Your task to perform on an android device: Open privacy settings Image 0: 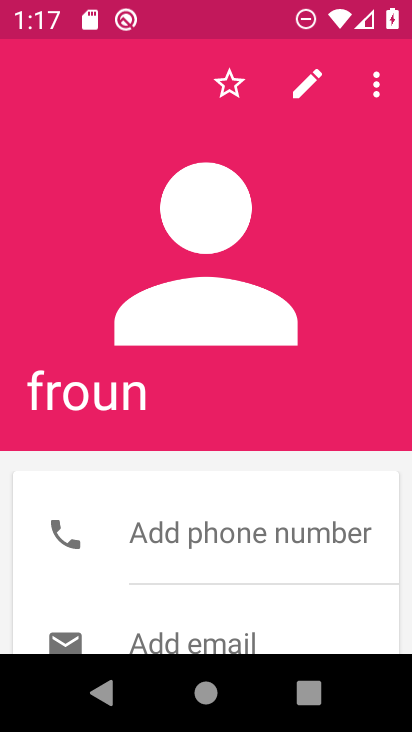
Step 0: press home button
Your task to perform on an android device: Open privacy settings Image 1: 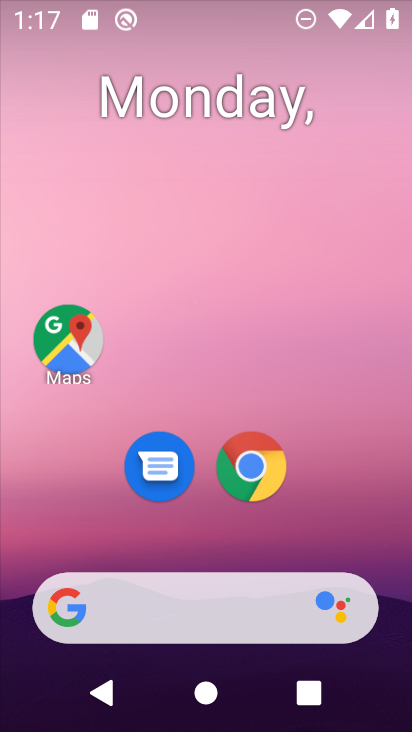
Step 1: click (169, 28)
Your task to perform on an android device: Open privacy settings Image 2: 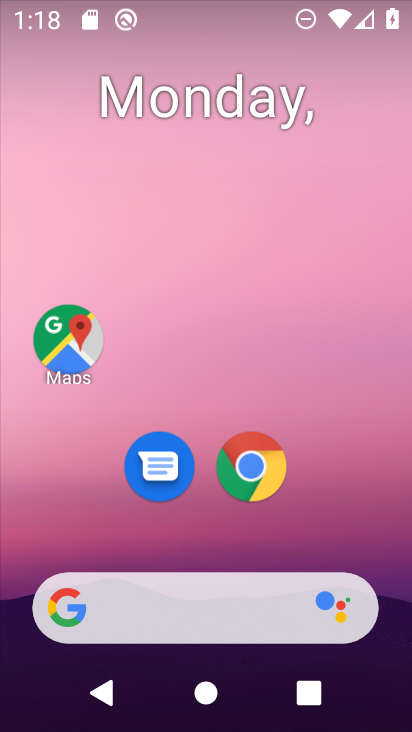
Step 2: drag from (200, 540) to (232, 5)
Your task to perform on an android device: Open privacy settings Image 3: 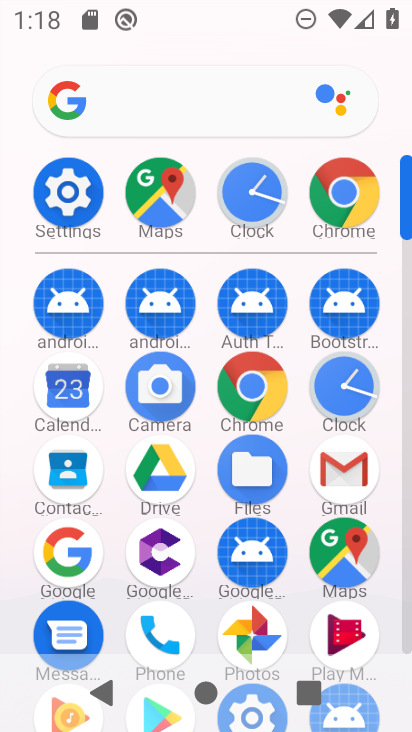
Step 3: click (77, 204)
Your task to perform on an android device: Open privacy settings Image 4: 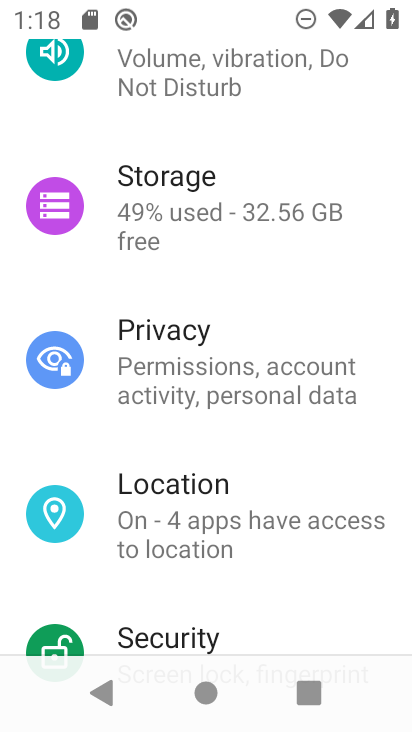
Step 4: click (162, 383)
Your task to perform on an android device: Open privacy settings Image 5: 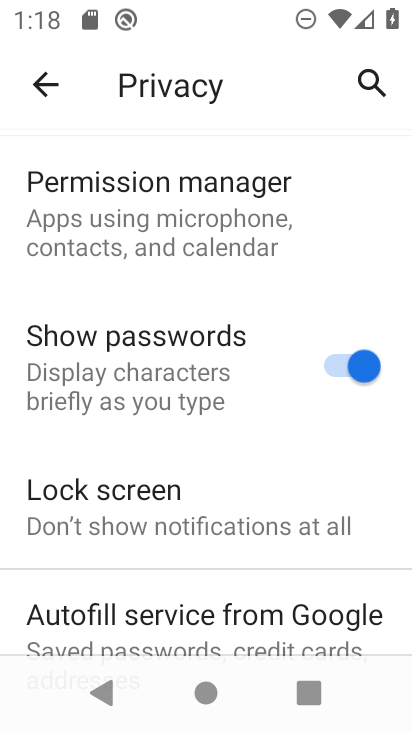
Step 5: task complete